Your task to perform on an android device: change timer sound Image 0: 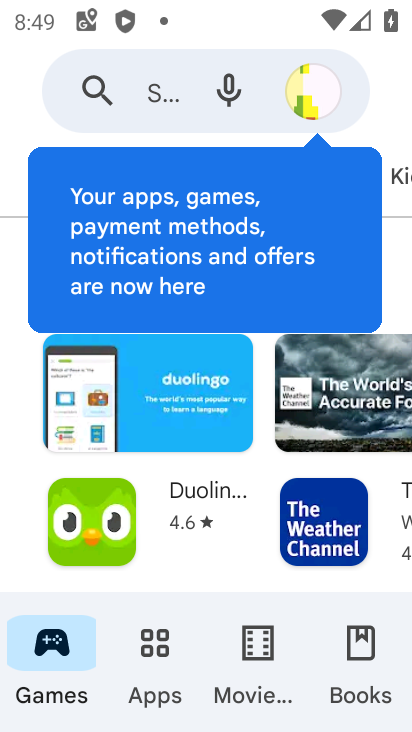
Step 0: press home button
Your task to perform on an android device: change timer sound Image 1: 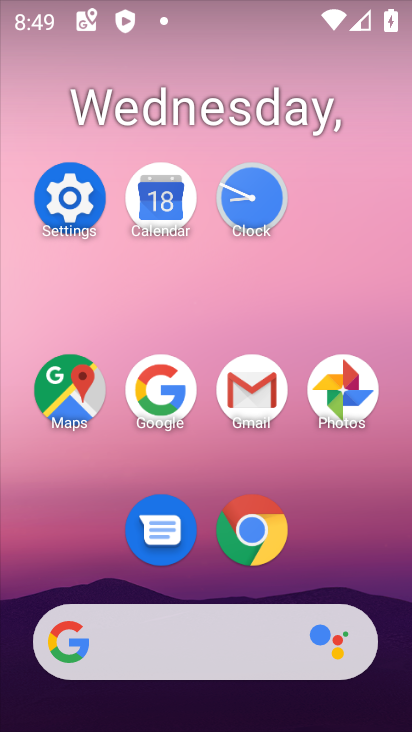
Step 1: click (259, 202)
Your task to perform on an android device: change timer sound Image 2: 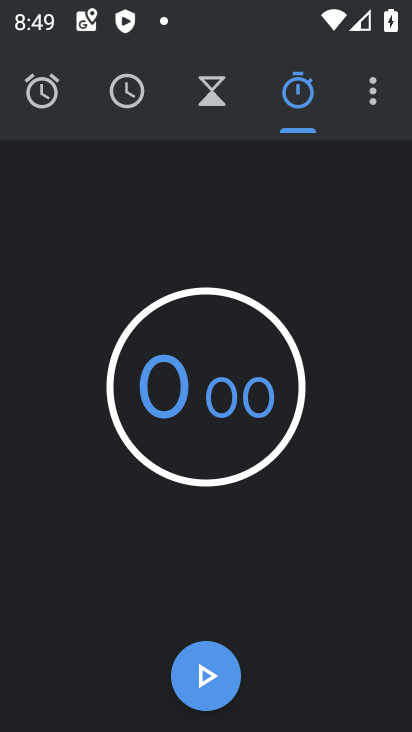
Step 2: click (376, 78)
Your task to perform on an android device: change timer sound Image 3: 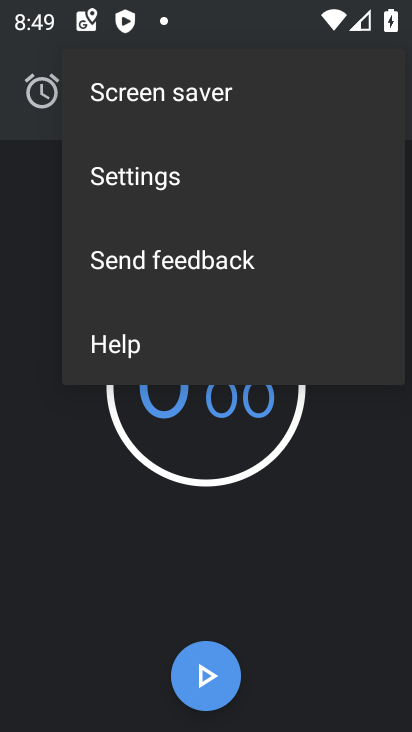
Step 3: click (182, 184)
Your task to perform on an android device: change timer sound Image 4: 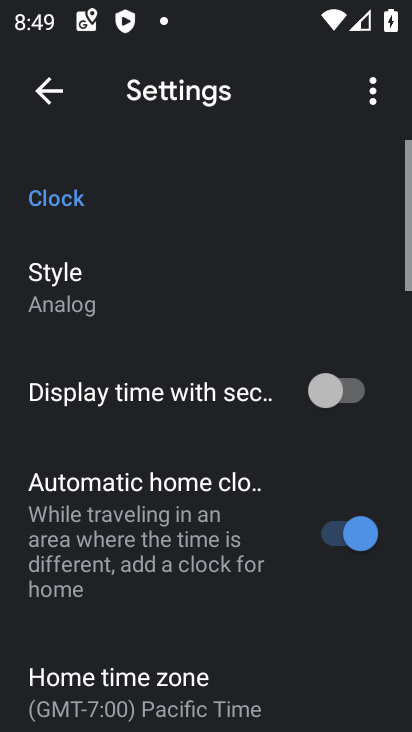
Step 4: drag from (280, 432) to (277, 91)
Your task to perform on an android device: change timer sound Image 5: 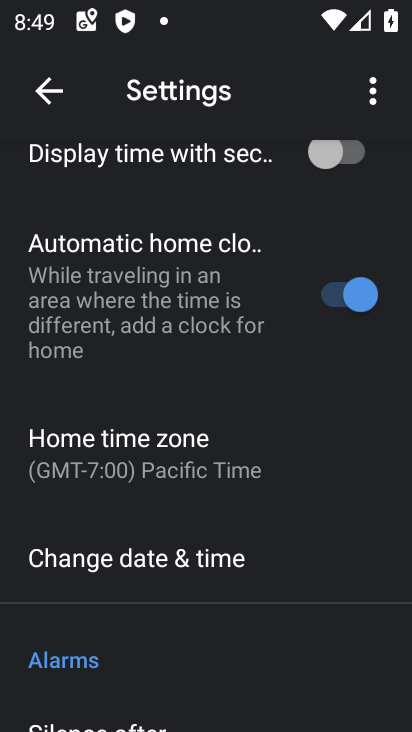
Step 5: drag from (225, 540) to (233, 175)
Your task to perform on an android device: change timer sound Image 6: 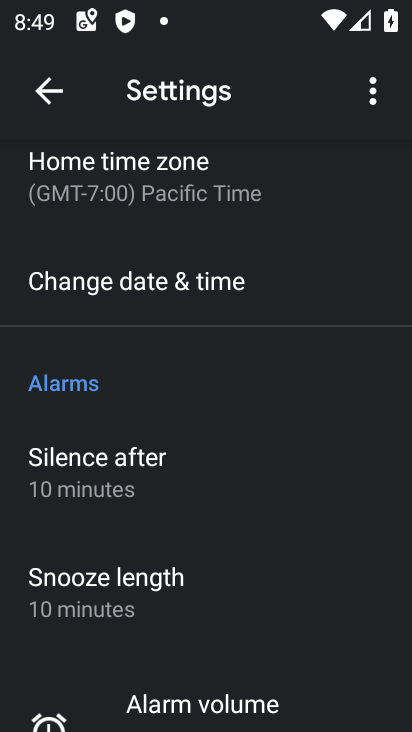
Step 6: drag from (192, 448) to (194, 149)
Your task to perform on an android device: change timer sound Image 7: 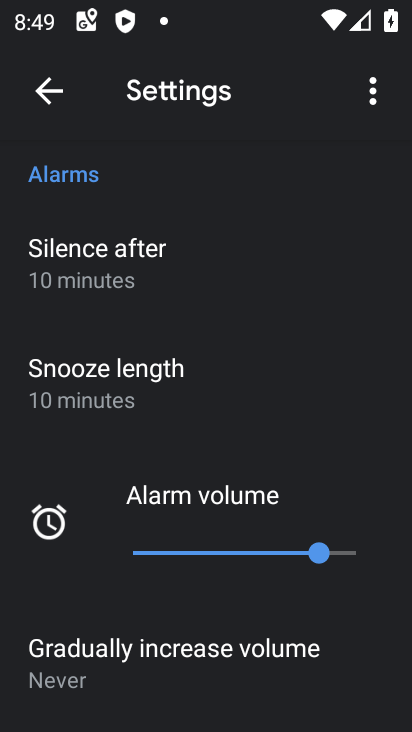
Step 7: drag from (224, 594) to (209, 222)
Your task to perform on an android device: change timer sound Image 8: 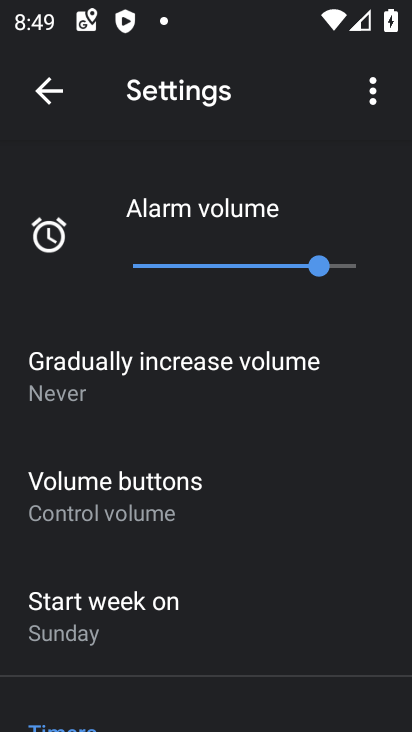
Step 8: drag from (186, 591) to (229, 194)
Your task to perform on an android device: change timer sound Image 9: 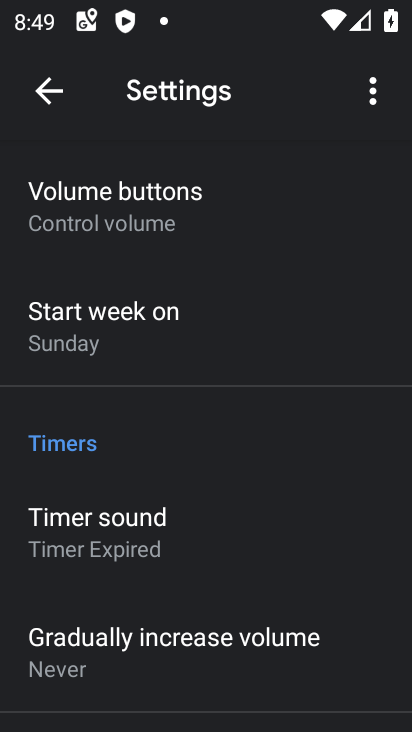
Step 9: click (160, 547)
Your task to perform on an android device: change timer sound Image 10: 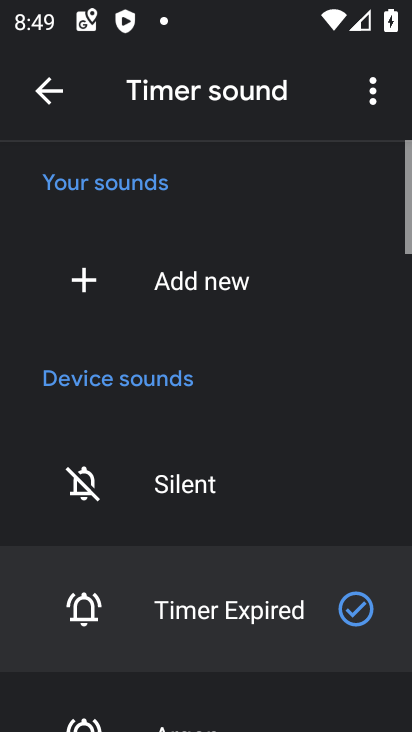
Step 10: click (210, 710)
Your task to perform on an android device: change timer sound Image 11: 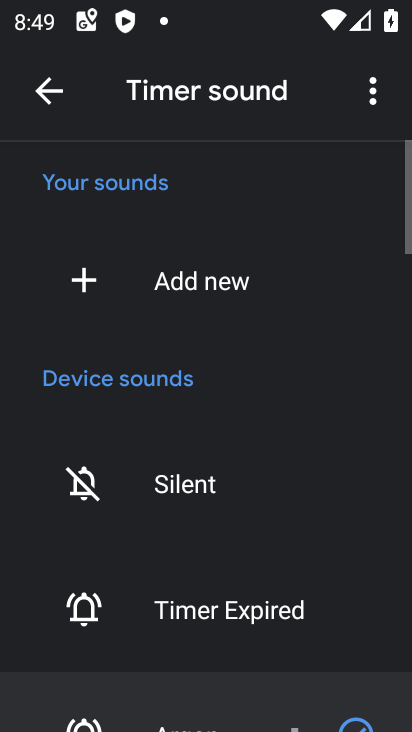
Step 11: task complete